Your task to perform on an android device: Turn on the flashlight Image 0: 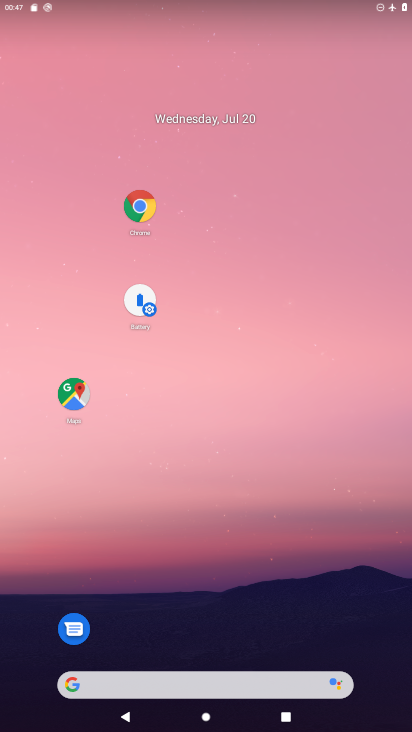
Step 0: drag from (172, 650) to (262, 62)
Your task to perform on an android device: Turn on the flashlight Image 1: 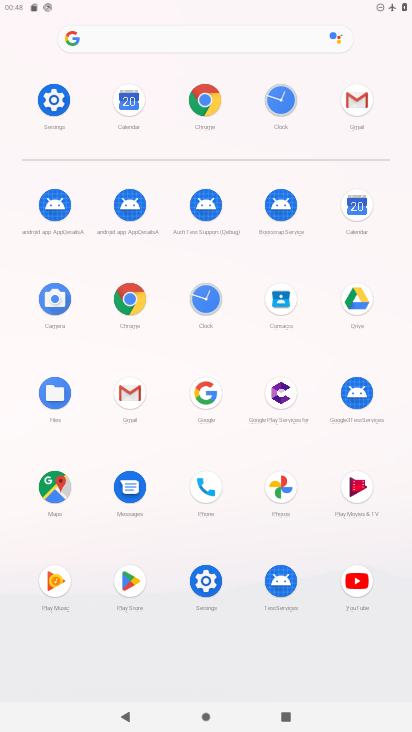
Step 1: click (202, 578)
Your task to perform on an android device: Turn on the flashlight Image 2: 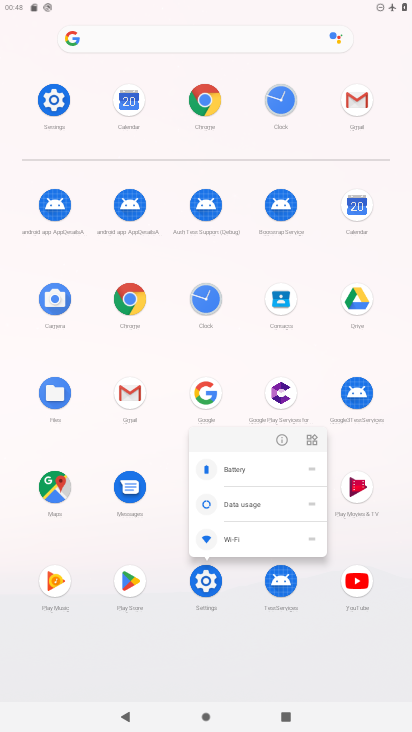
Step 2: click (279, 443)
Your task to perform on an android device: Turn on the flashlight Image 3: 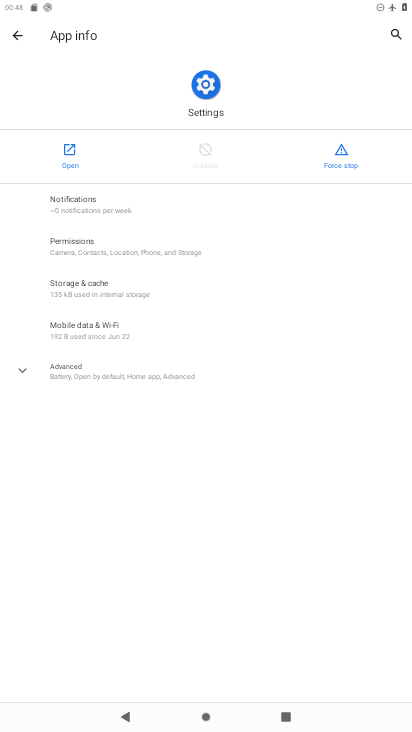
Step 3: click (58, 159)
Your task to perform on an android device: Turn on the flashlight Image 4: 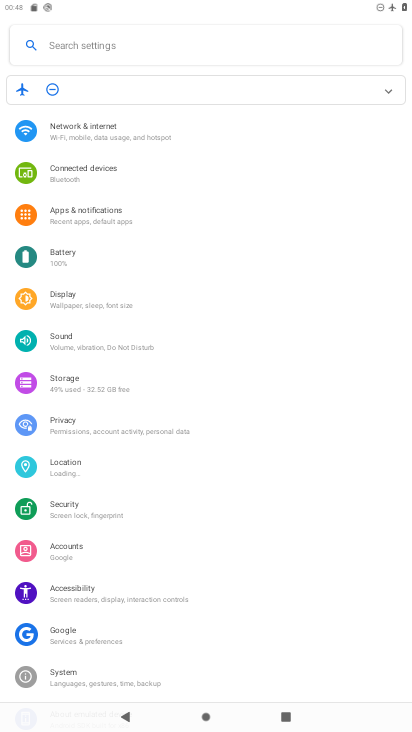
Step 4: click (124, 41)
Your task to perform on an android device: Turn on the flashlight Image 5: 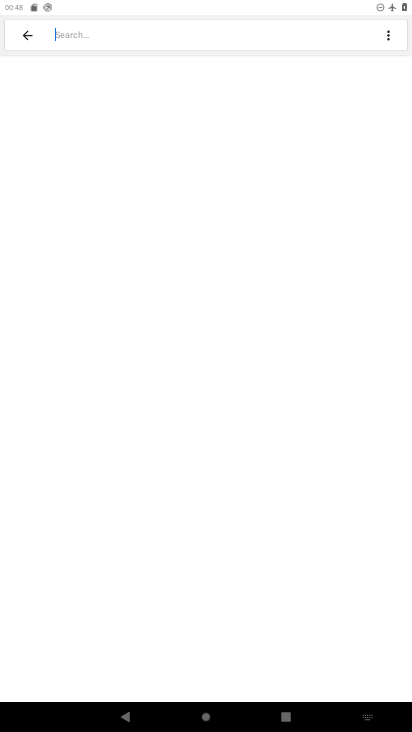
Step 5: type "flashlight"
Your task to perform on an android device: Turn on the flashlight Image 6: 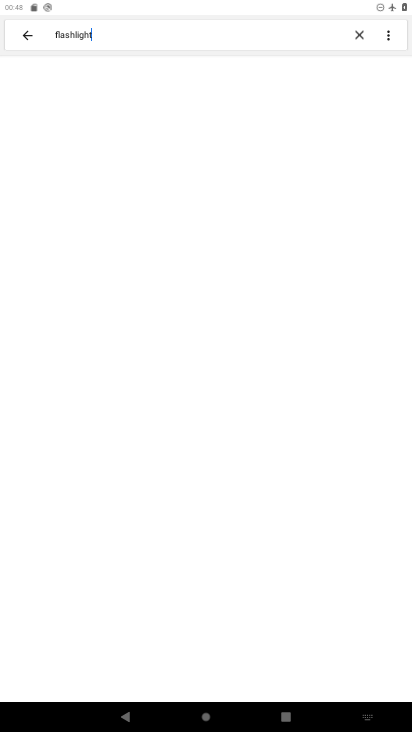
Step 6: type ""
Your task to perform on an android device: Turn on the flashlight Image 7: 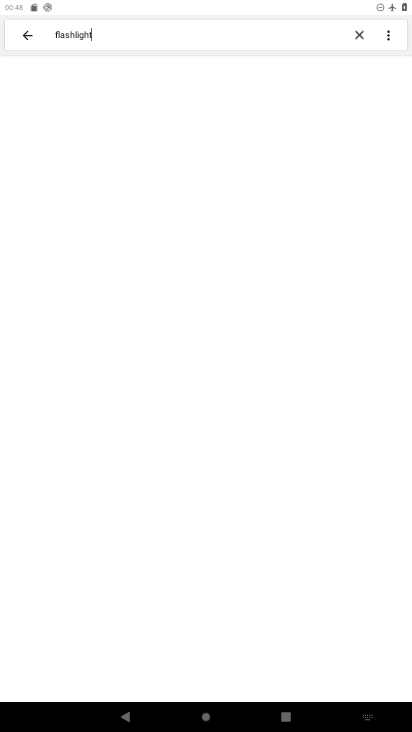
Step 7: click (139, 121)
Your task to perform on an android device: Turn on the flashlight Image 8: 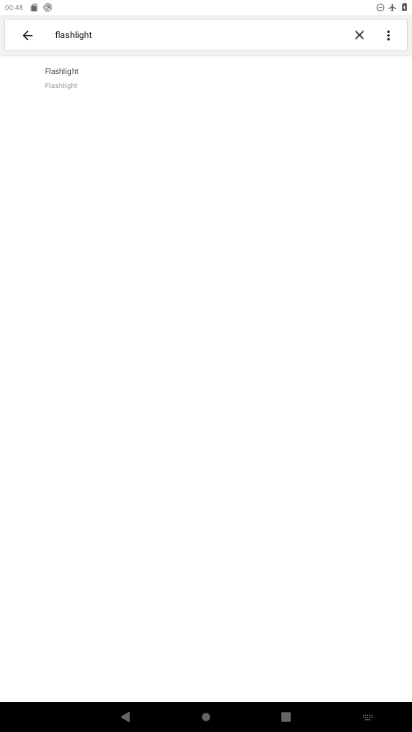
Step 8: click (177, 79)
Your task to perform on an android device: Turn on the flashlight Image 9: 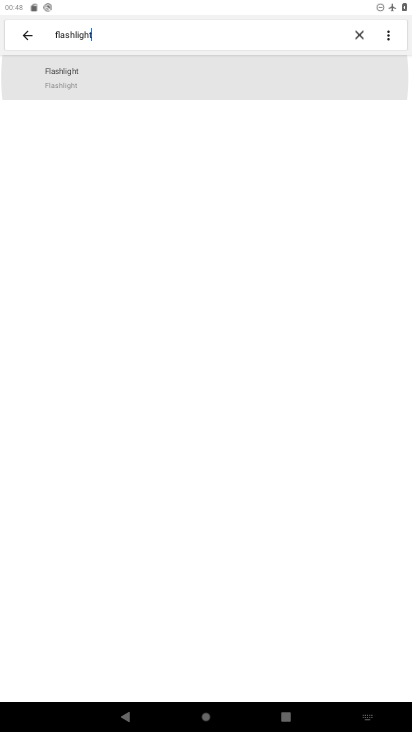
Step 9: click (176, 81)
Your task to perform on an android device: Turn on the flashlight Image 10: 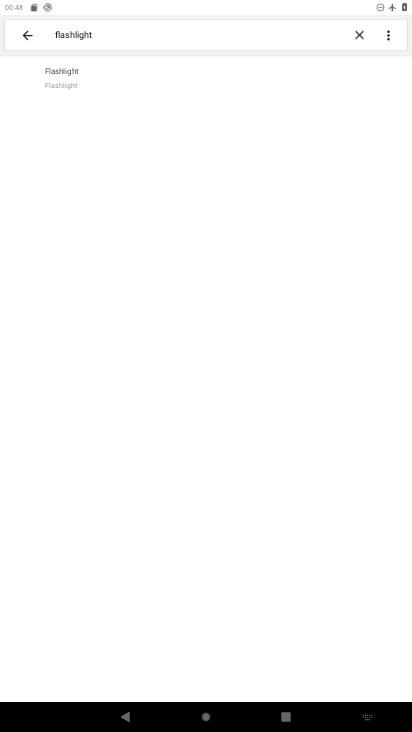
Step 10: click (176, 81)
Your task to perform on an android device: Turn on the flashlight Image 11: 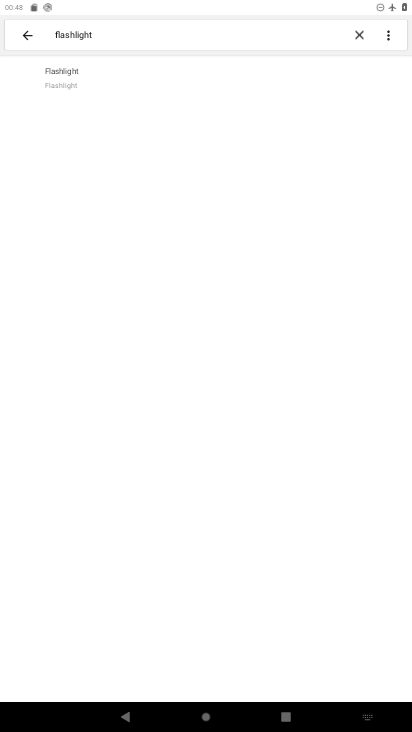
Step 11: click (172, 79)
Your task to perform on an android device: Turn on the flashlight Image 12: 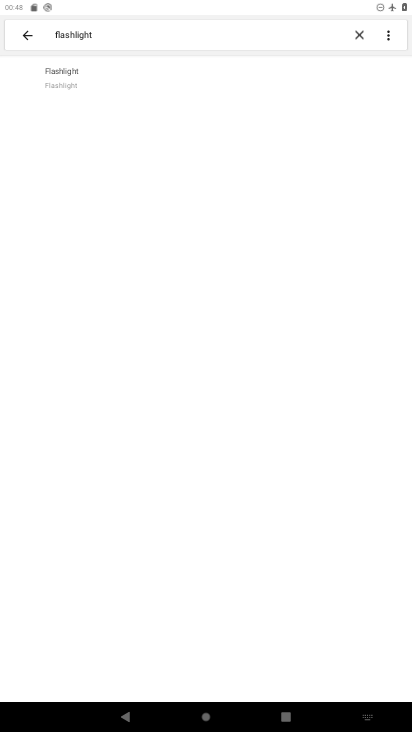
Step 12: task complete